Your task to perform on an android device: Do I have any events this weekend? Image 0: 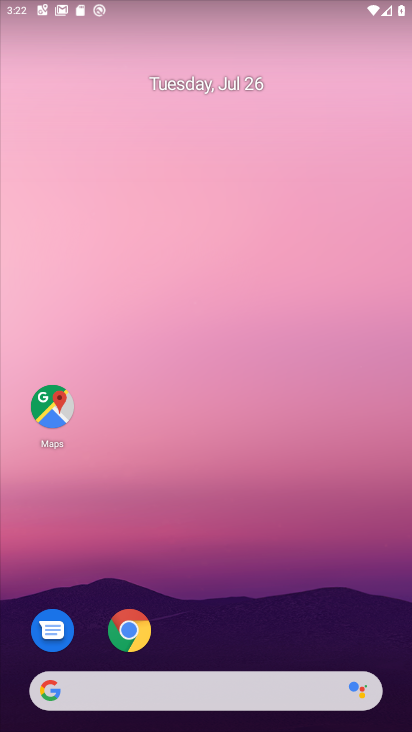
Step 0: click (192, 79)
Your task to perform on an android device: Do I have any events this weekend? Image 1: 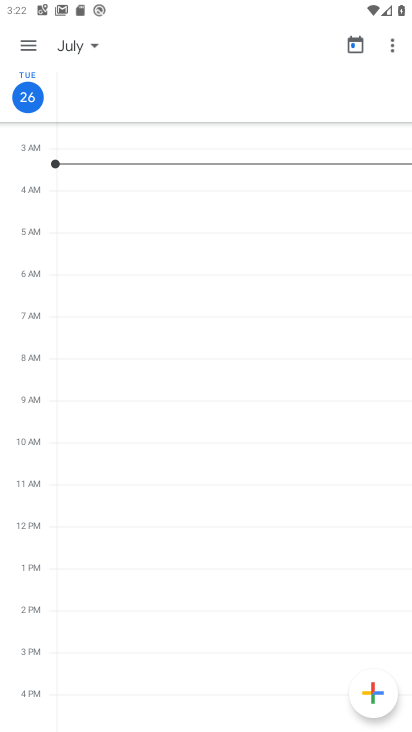
Step 1: click (60, 52)
Your task to perform on an android device: Do I have any events this weekend? Image 2: 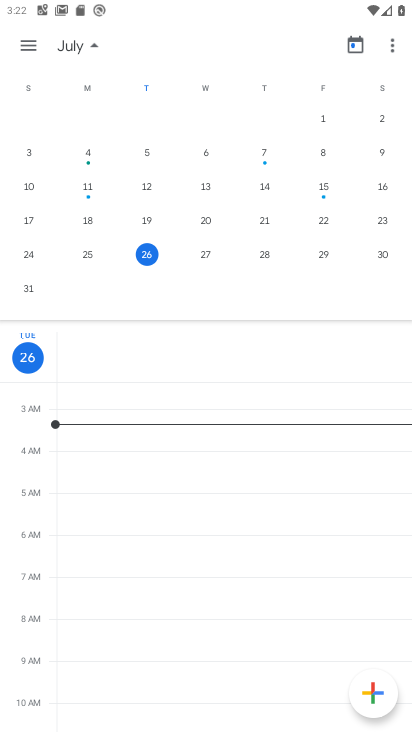
Step 2: click (382, 252)
Your task to perform on an android device: Do I have any events this weekend? Image 3: 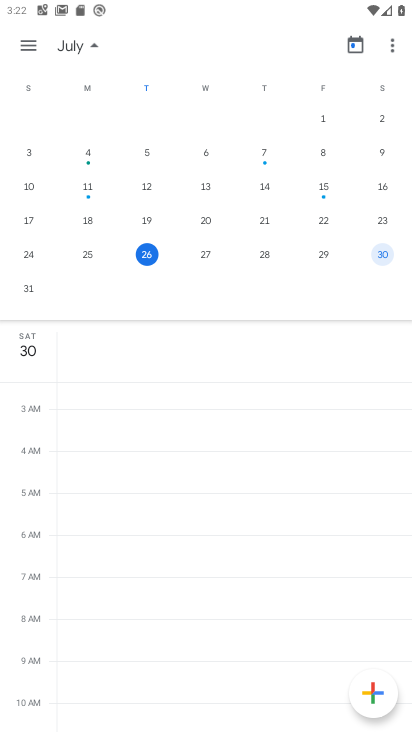
Step 3: task complete